Your task to perform on an android device: set an alarm Image 0: 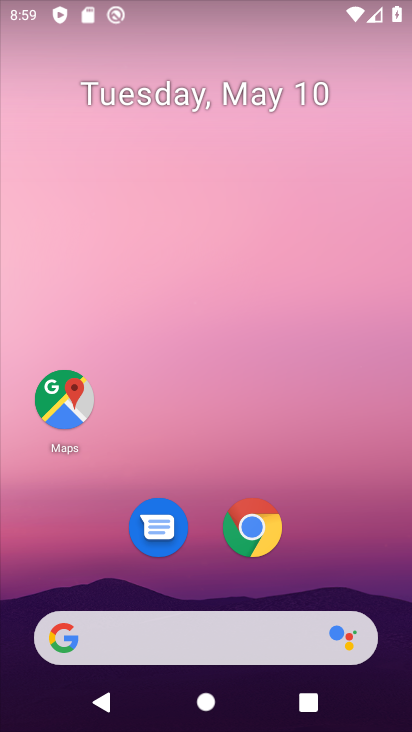
Step 0: drag from (189, 573) to (153, 32)
Your task to perform on an android device: set an alarm Image 1: 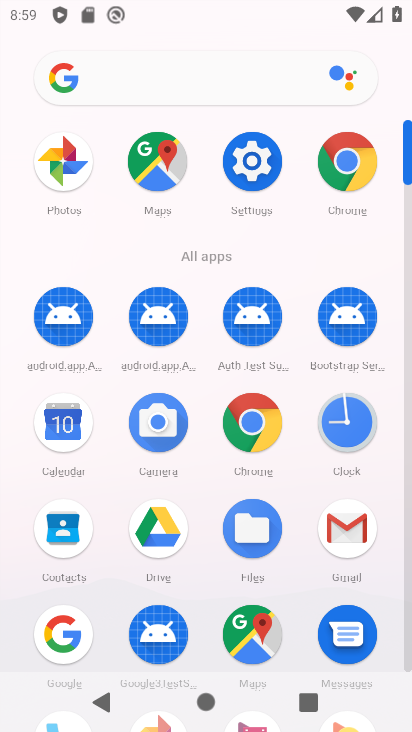
Step 1: click (335, 424)
Your task to perform on an android device: set an alarm Image 2: 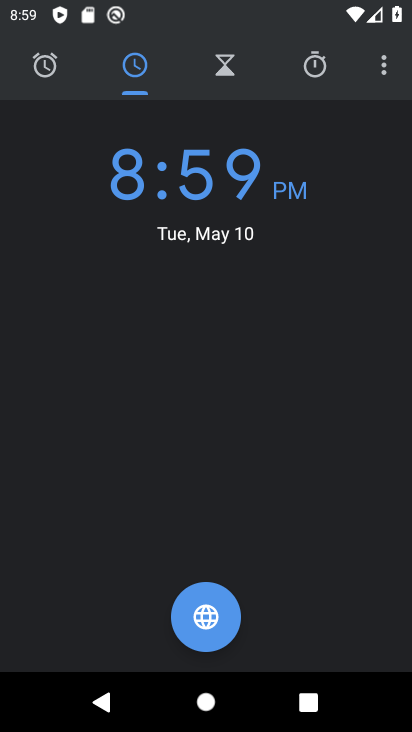
Step 2: click (45, 61)
Your task to perform on an android device: set an alarm Image 3: 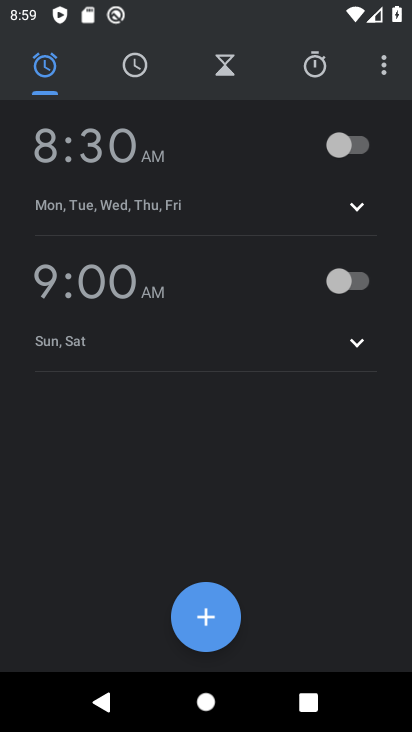
Step 3: click (221, 623)
Your task to perform on an android device: set an alarm Image 4: 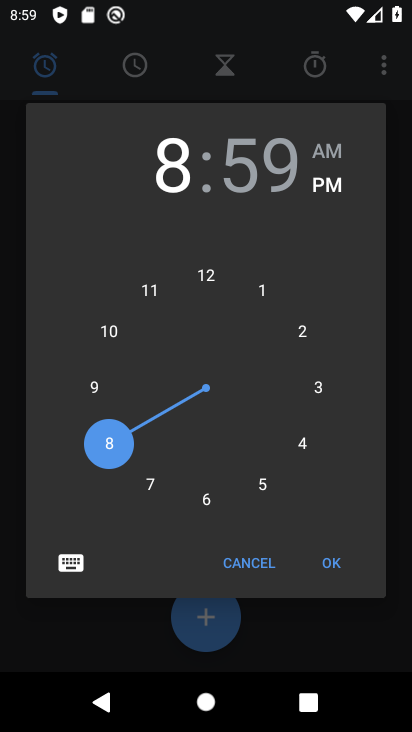
Step 4: click (320, 568)
Your task to perform on an android device: set an alarm Image 5: 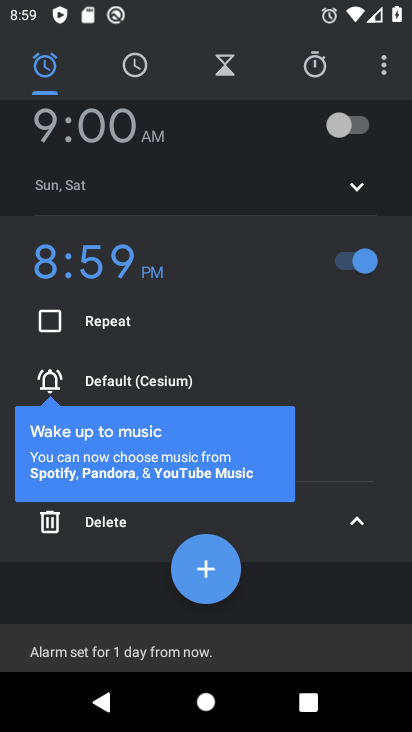
Step 5: task complete